Your task to perform on an android device: toggle priority inbox in the gmail app Image 0: 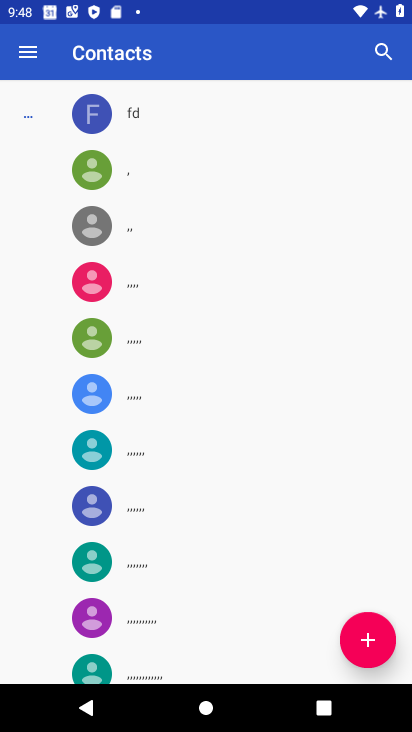
Step 0: press home button
Your task to perform on an android device: toggle priority inbox in the gmail app Image 1: 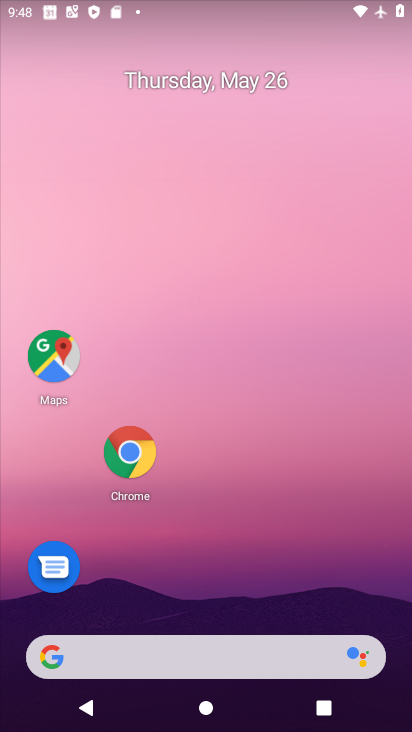
Step 1: drag from (183, 660) to (320, 152)
Your task to perform on an android device: toggle priority inbox in the gmail app Image 2: 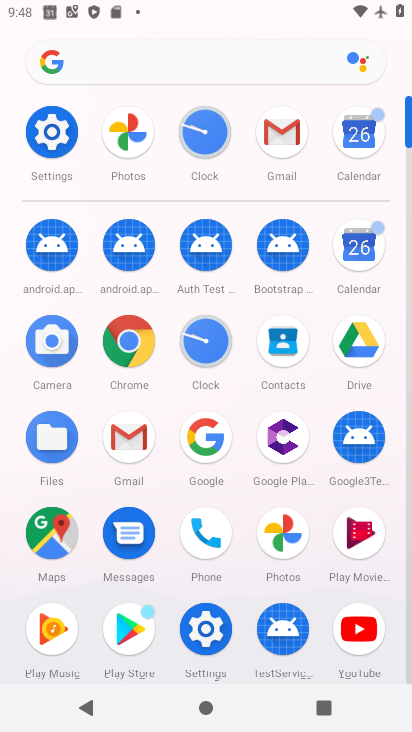
Step 2: click (128, 456)
Your task to perform on an android device: toggle priority inbox in the gmail app Image 3: 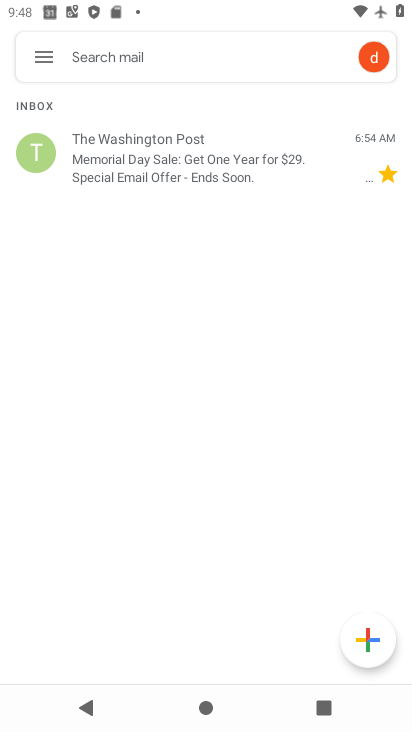
Step 3: click (46, 58)
Your task to perform on an android device: toggle priority inbox in the gmail app Image 4: 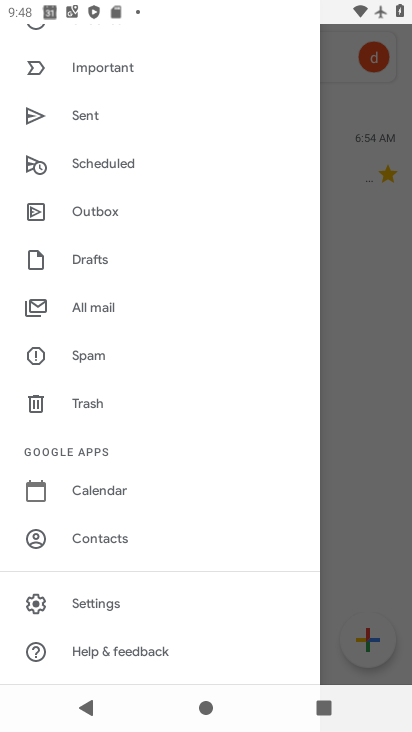
Step 4: click (119, 613)
Your task to perform on an android device: toggle priority inbox in the gmail app Image 5: 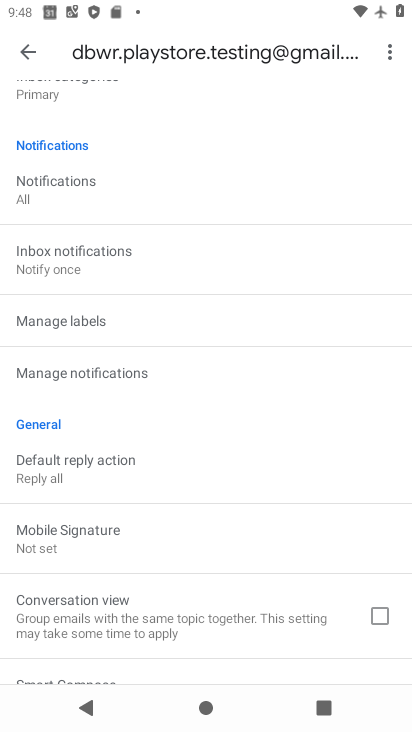
Step 5: drag from (167, 165) to (141, 470)
Your task to perform on an android device: toggle priority inbox in the gmail app Image 6: 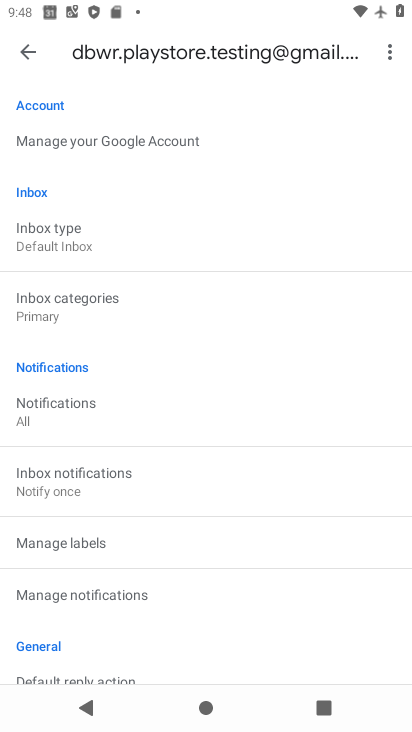
Step 6: click (41, 234)
Your task to perform on an android device: toggle priority inbox in the gmail app Image 7: 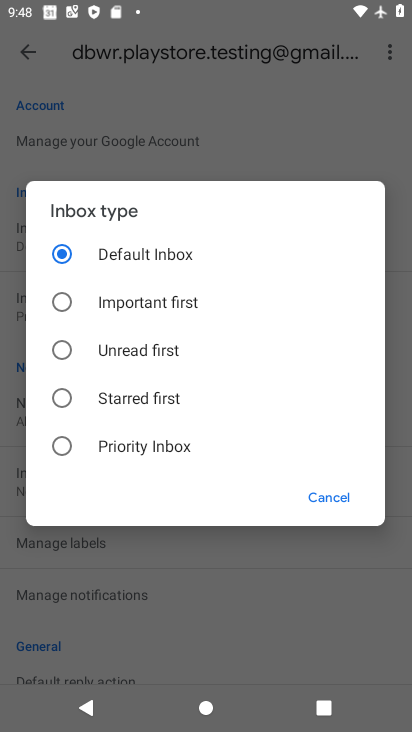
Step 7: click (65, 446)
Your task to perform on an android device: toggle priority inbox in the gmail app Image 8: 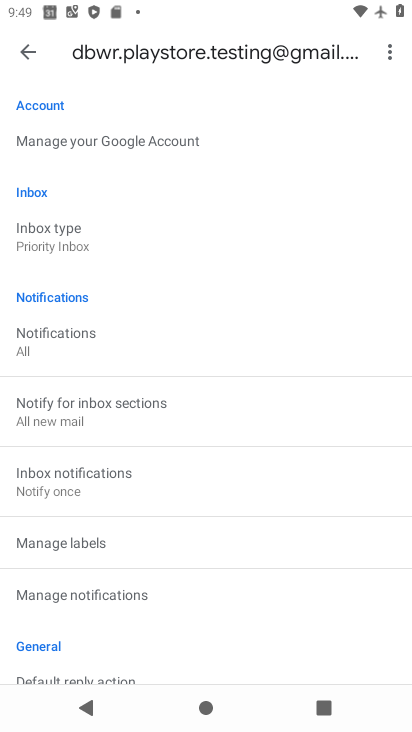
Step 8: task complete